Your task to perform on an android device: turn off notifications in google photos Image 0: 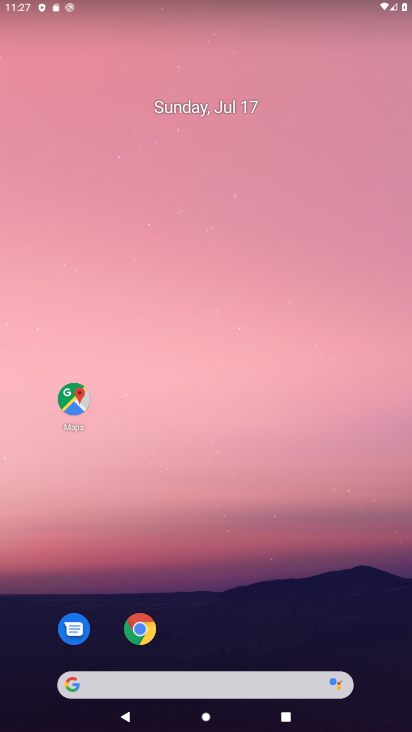
Step 0: press home button
Your task to perform on an android device: turn off notifications in google photos Image 1: 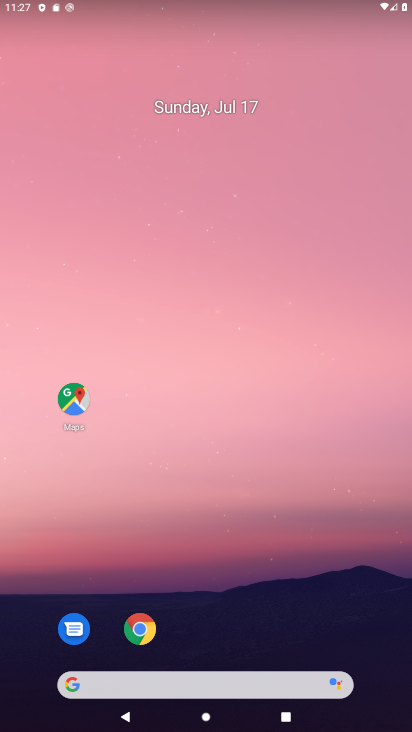
Step 1: drag from (221, 675) to (306, 218)
Your task to perform on an android device: turn off notifications in google photos Image 2: 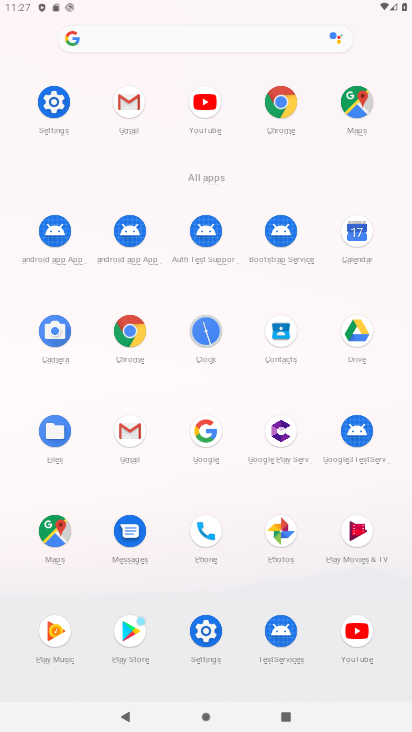
Step 2: click (274, 547)
Your task to perform on an android device: turn off notifications in google photos Image 3: 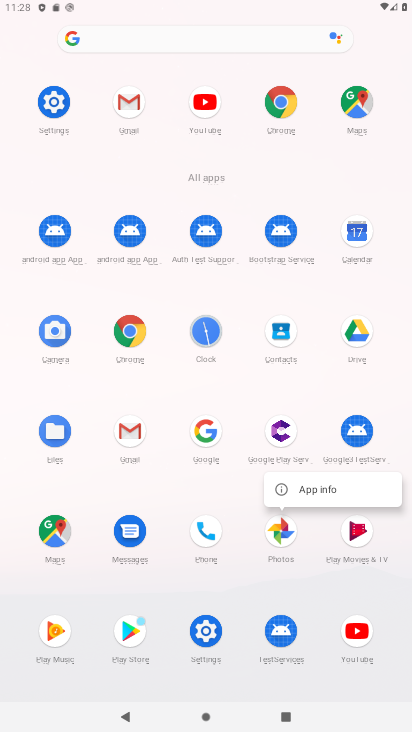
Step 3: click (272, 493)
Your task to perform on an android device: turn off notifications in google photos Image 4: 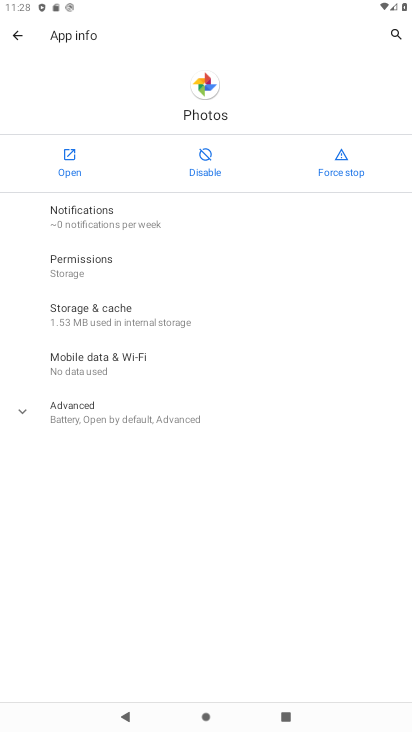
Step 4: click (87, 221)
Your task to perform on an android device: turn off notifications in google photos Image 5: 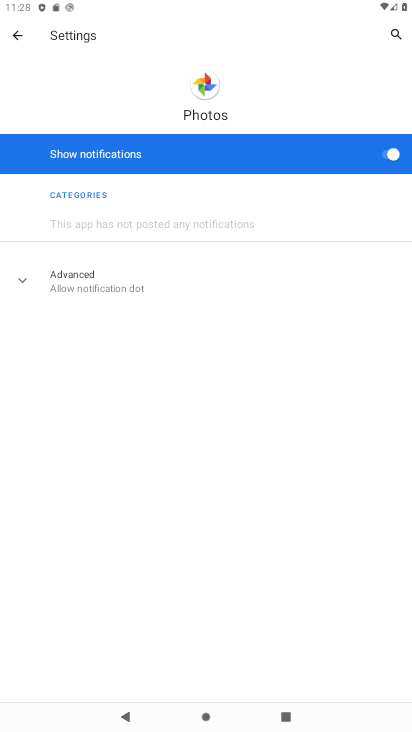
Step 5: click (104, 166)
Your task to perform on an android device: turn off notifications in google photos Image 6: 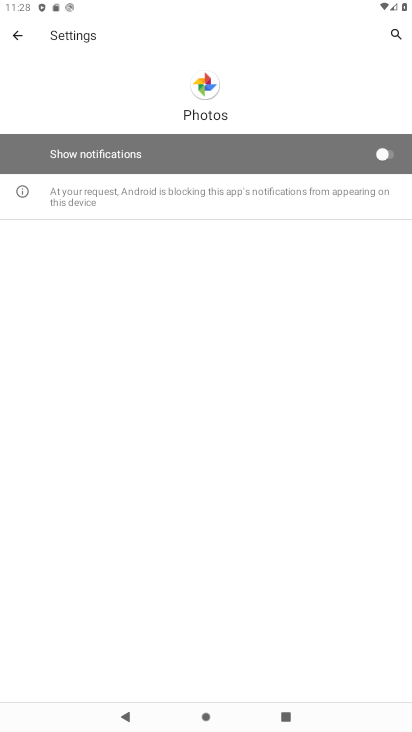
Step 6: task complete